Your task to perform on an android device: open app "Airtel Thanks" Image 0: 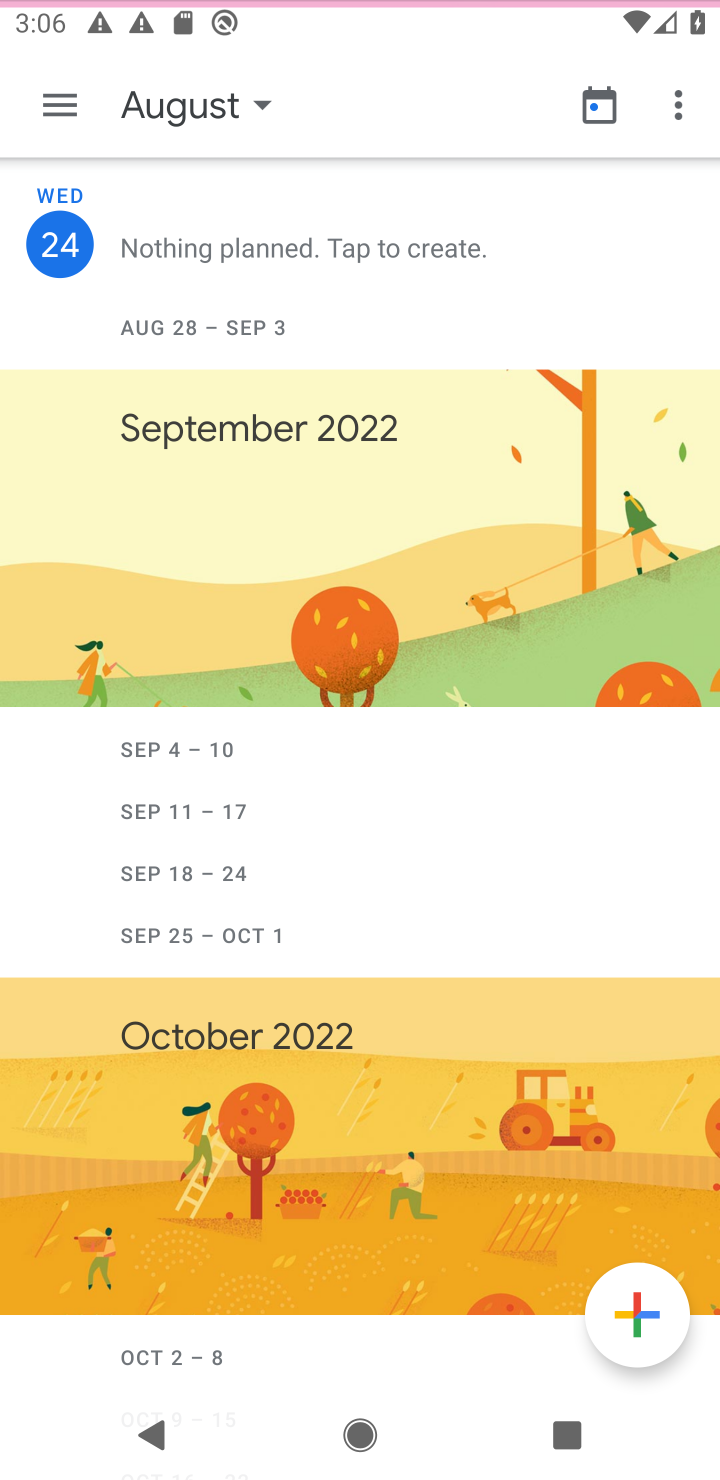
Step 0: press home button
Your task to perform on an android device: open app "Airtel Thanks" Image 1: 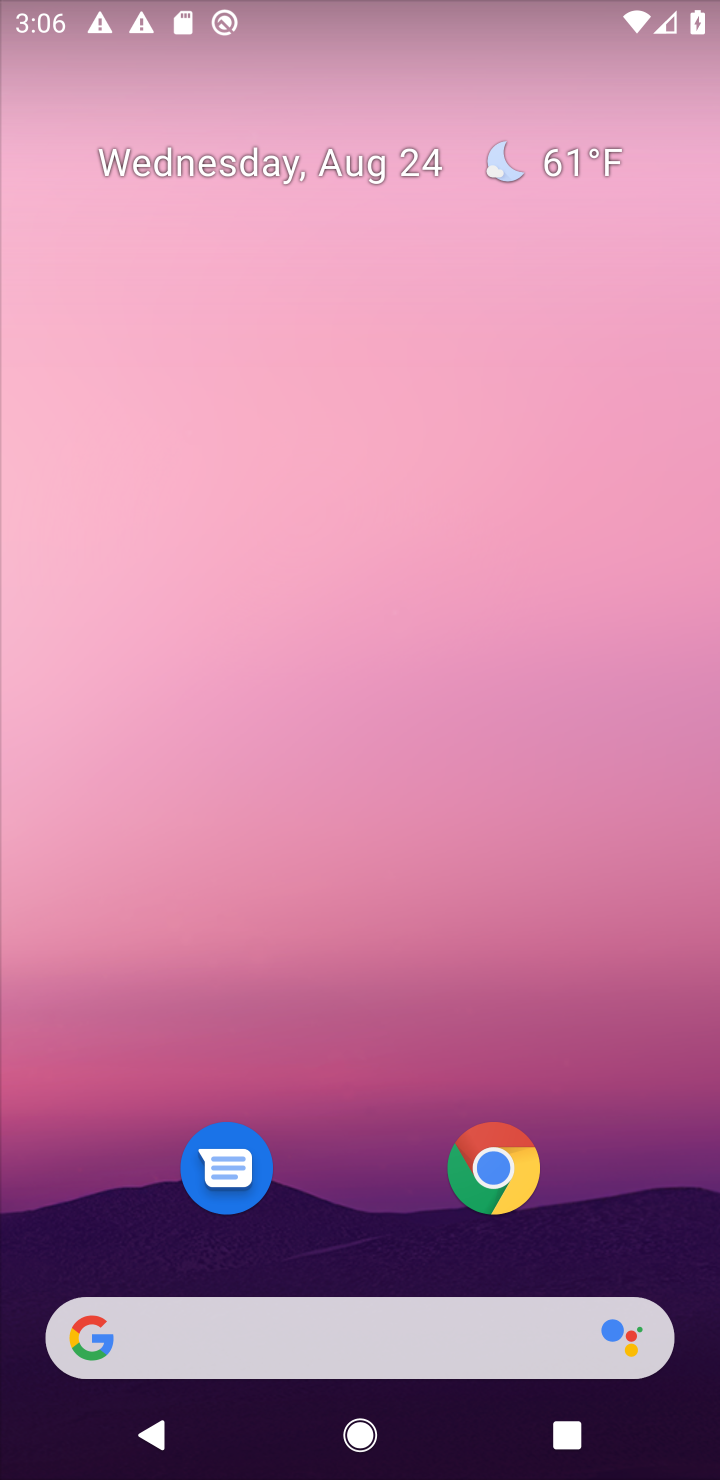
Step 1: drag from (694, 1240) to (605, 123)
Your task to perform on an android device: open app "Airtel Thanks" Image 2: 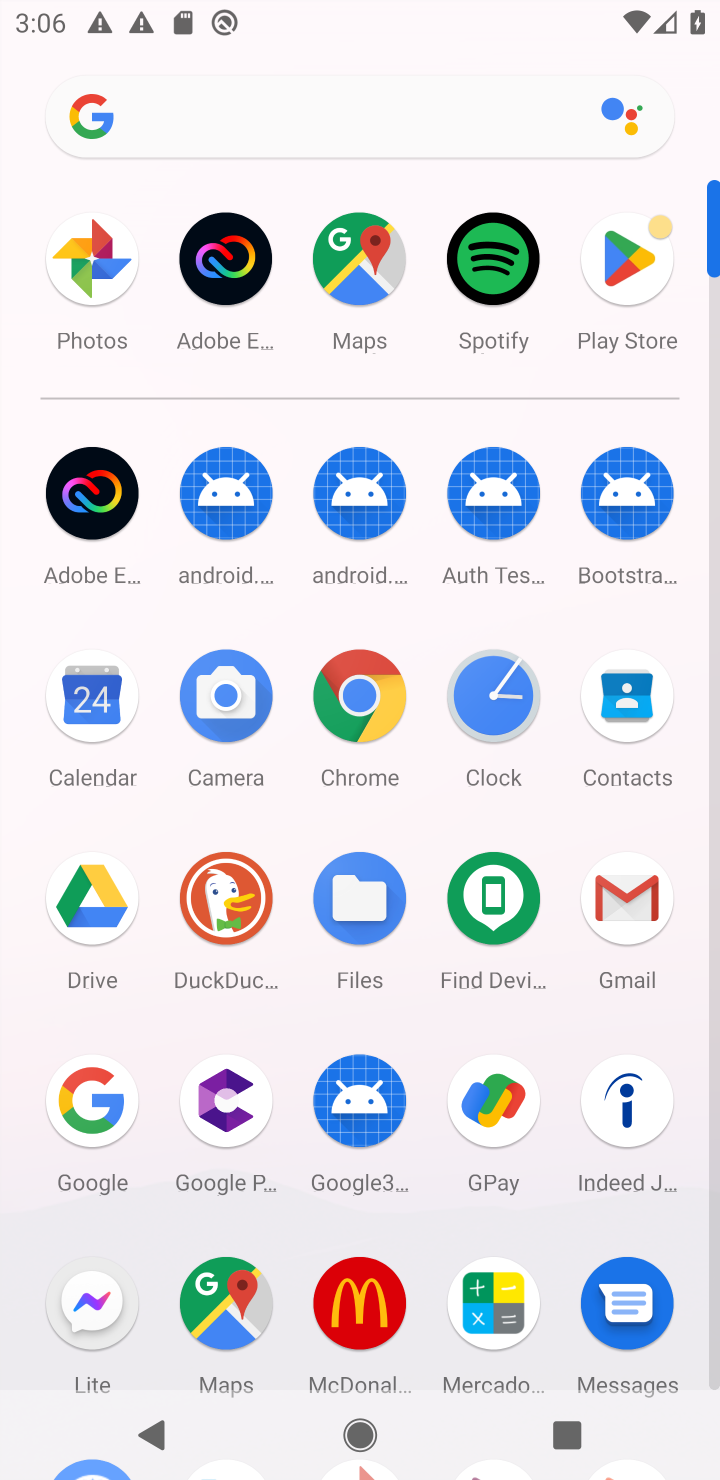
Step 2: click (713, 1342)
Your task to perform on an android device: open app "Airtel Thanks" Image 3: 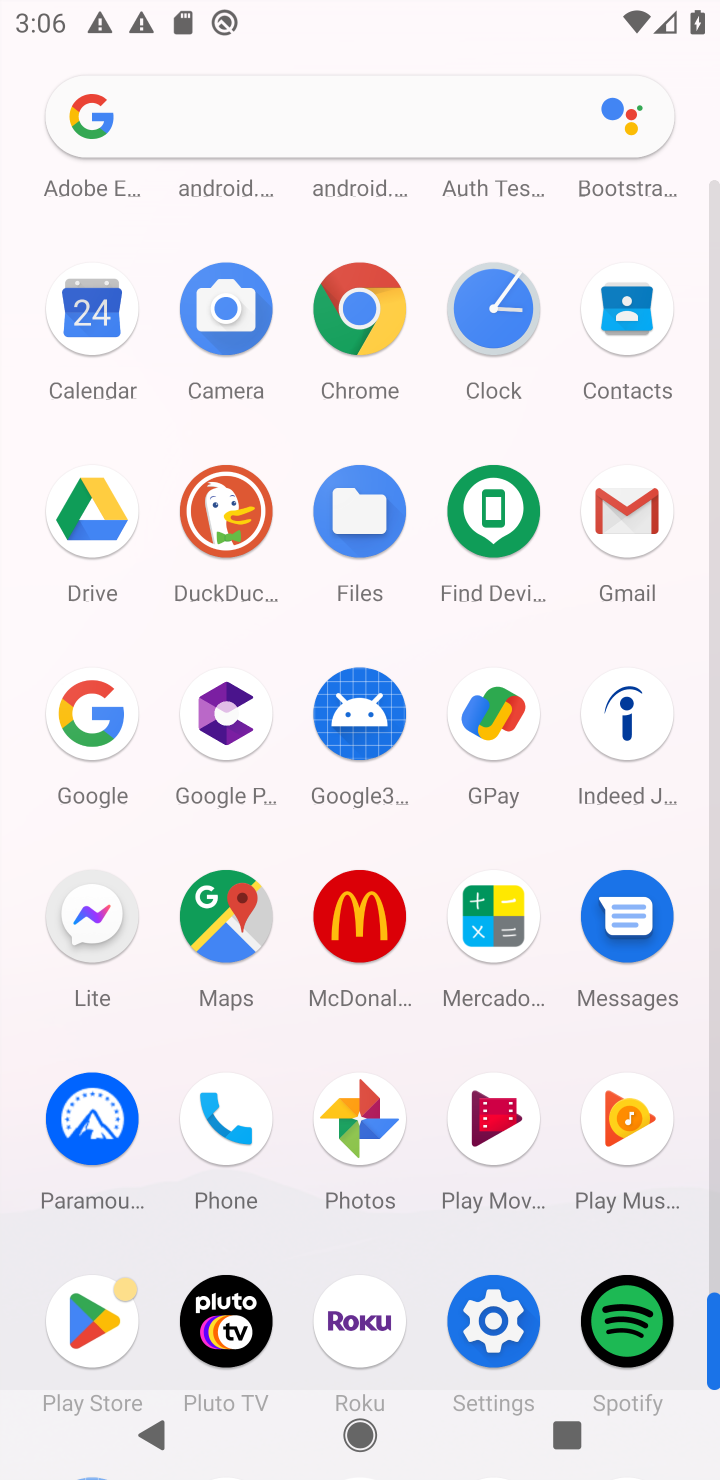
Step 3: click (100, 1322)
Your task to perform on an android device: open app "Airtel Thanks" Image 4: 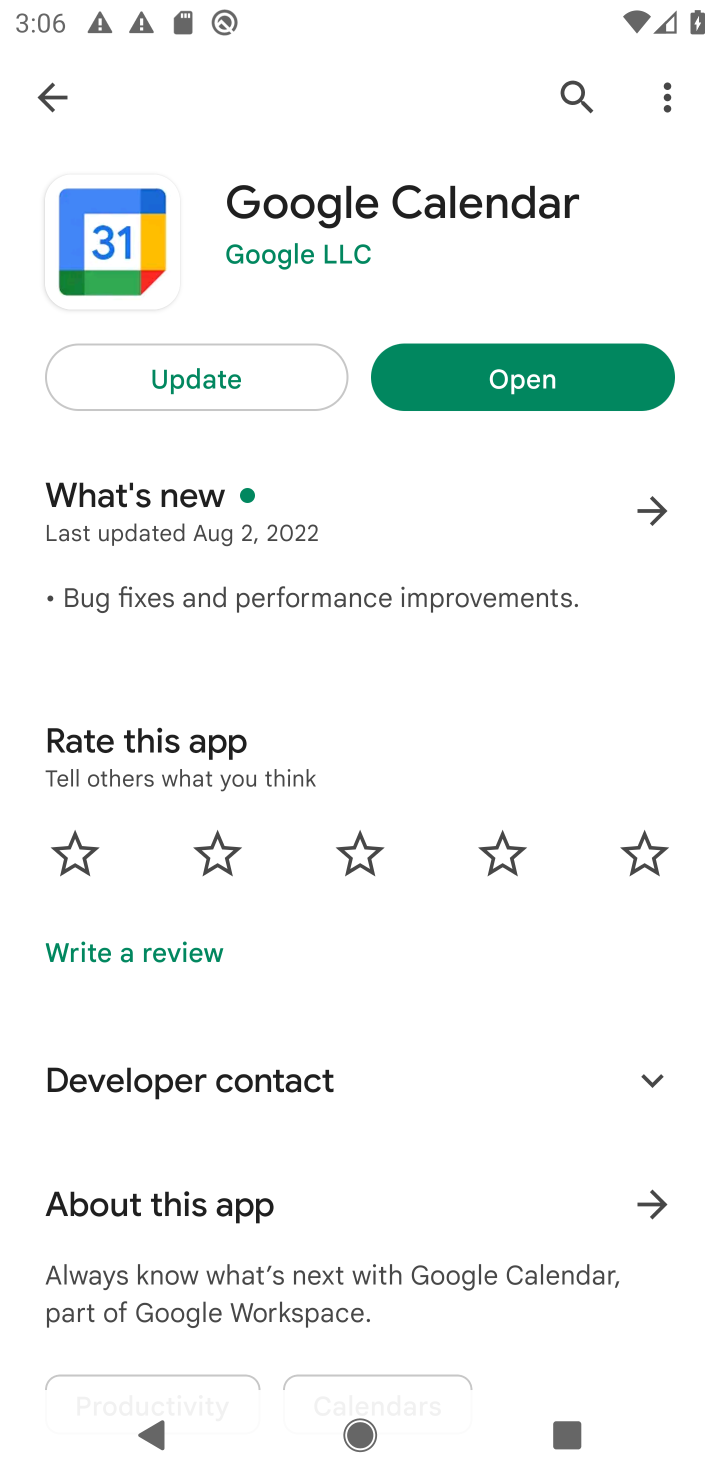
Step 4: click (569, 92)
Your task to perform on an android device: open app "Airtel Thanks" Image 5: 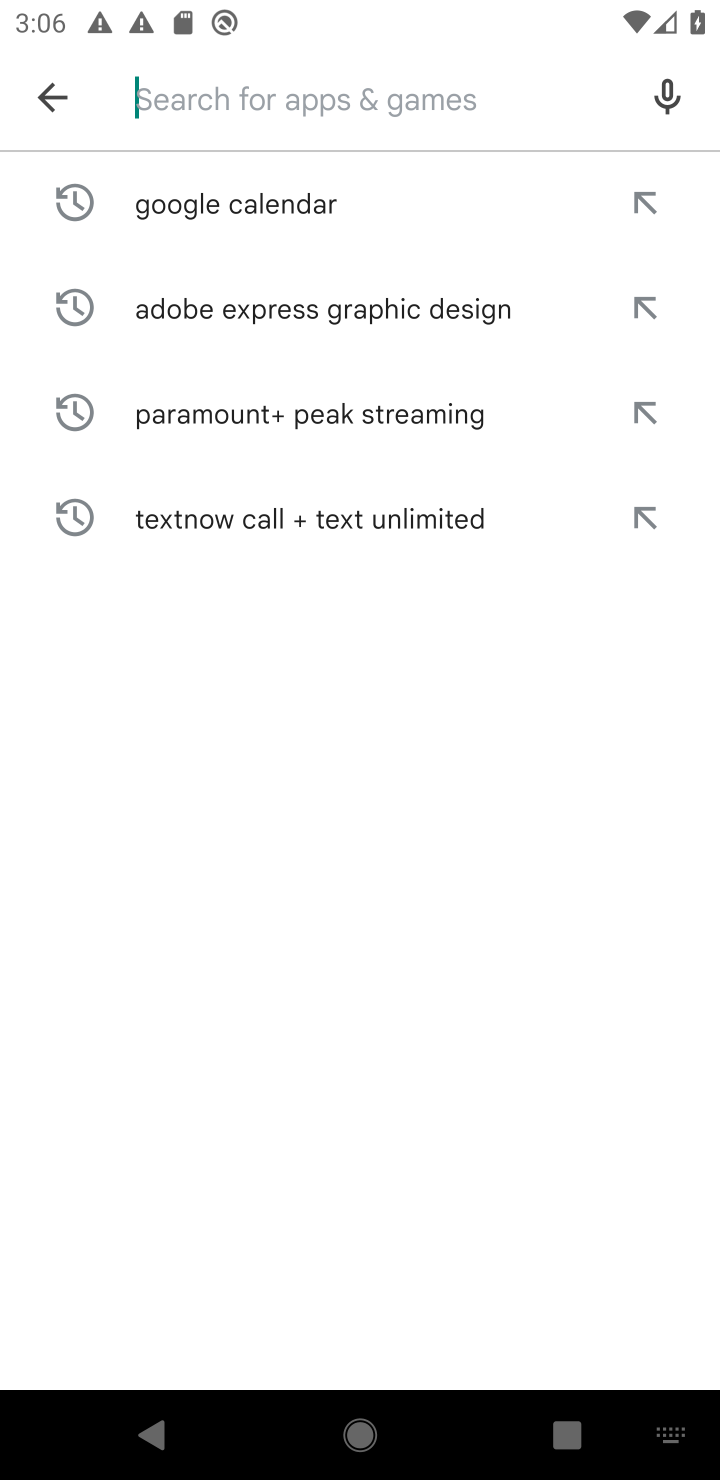
Step 5: type "Airtel Thanks"
Your task to perform on an android device: open app "Airtel Thanks" Image 6: 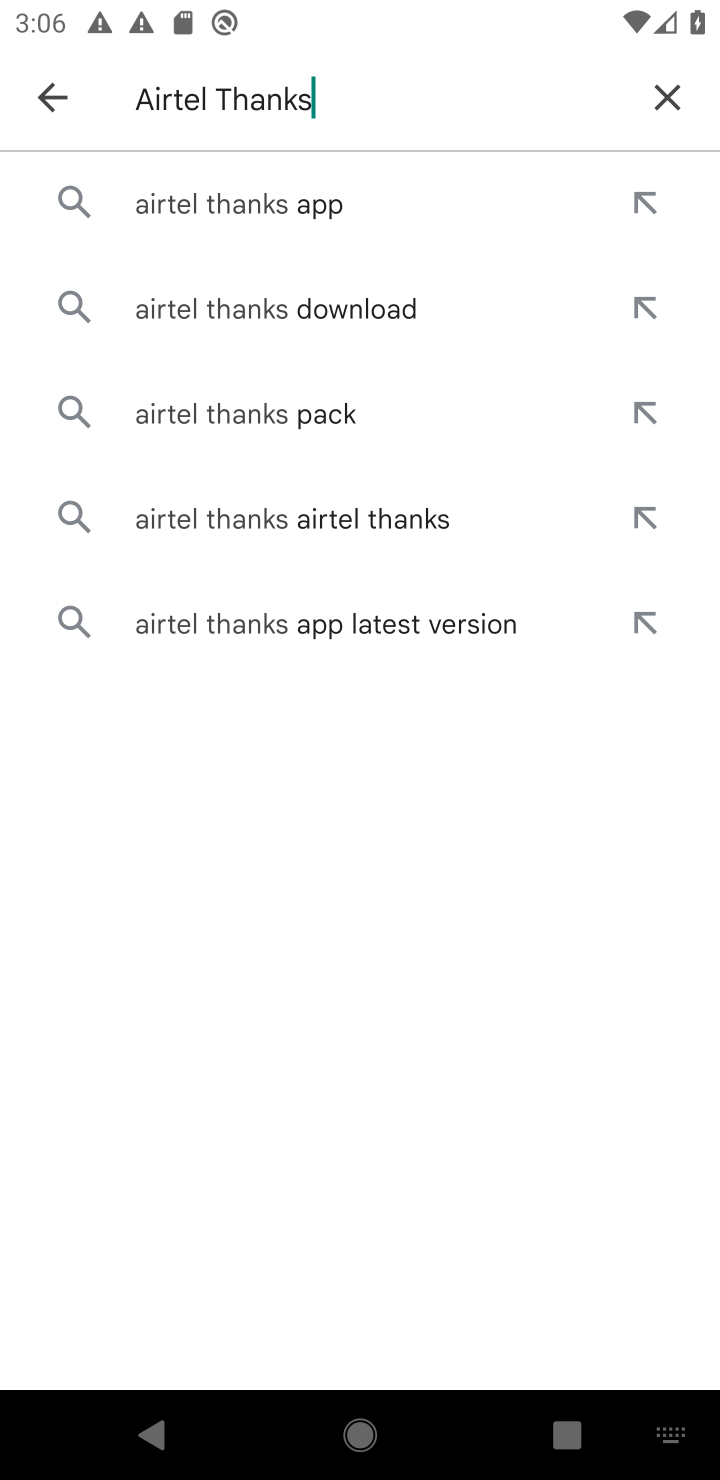
Step 6: click (237, 199)
Your task to perform on an android device: open app "Airtel Thanks" Image 7: 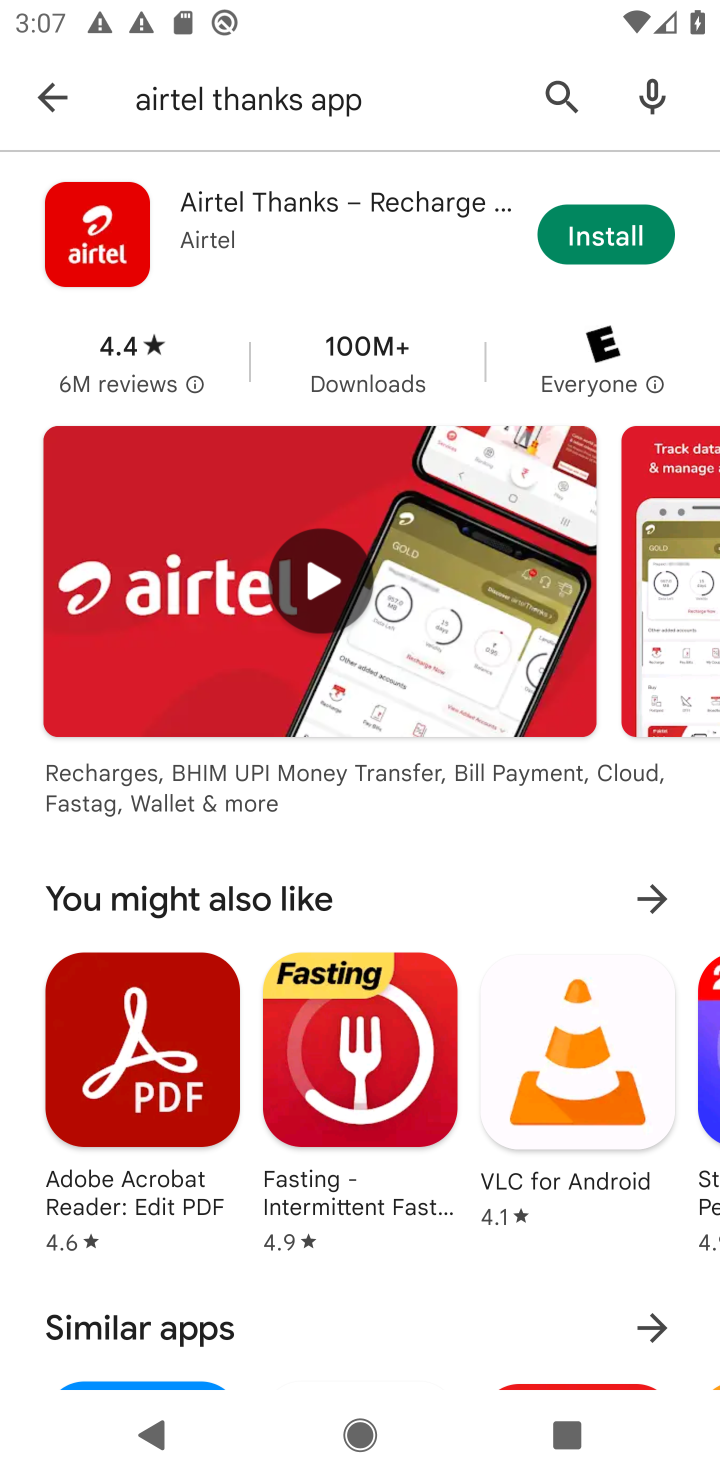
Step 7: task complete